Your task to perform on an android device: Open the calendar app, open the side menu, and click the "Day" option Image 0: 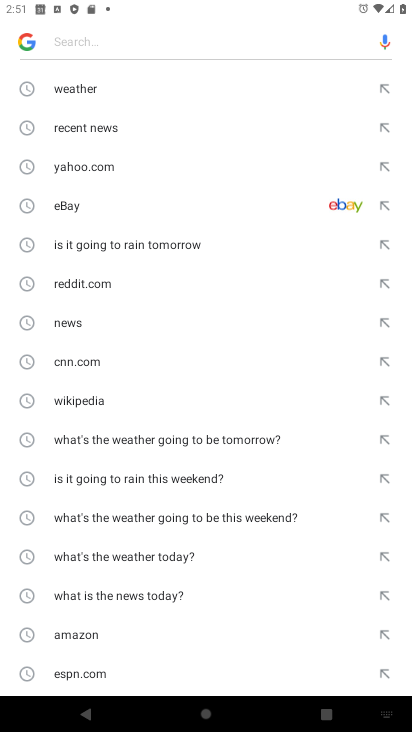
Step 0: press back button
Your task to perform on an android device: Open the calendar app, open the side menu, and click the "Day" option Image 1: 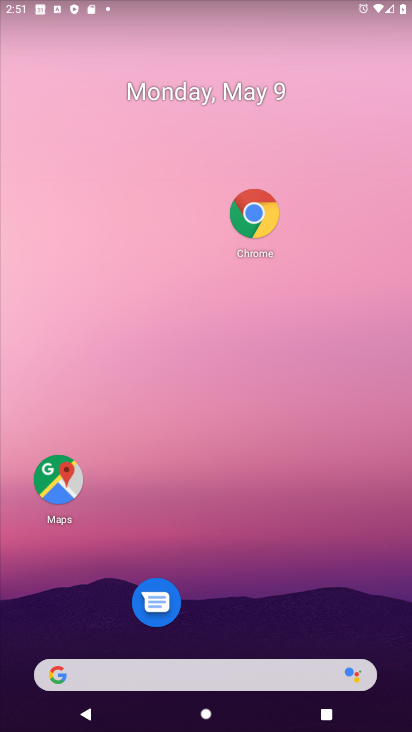
Step 1: drag from (324, 543) to (324, 221)
Your task to perform on an android device: Open the calendar app, open the side menu, and click the "Day" option Image 2: 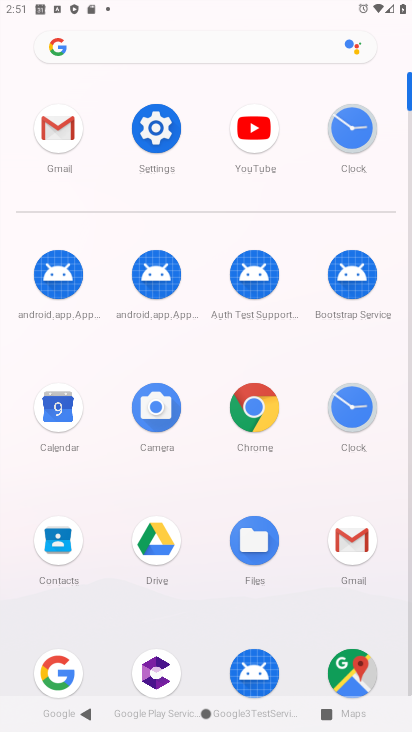
Step 2: click (52, 401)
Your task to perform on an android device: Open the calendar app, open the side menu, and click the "Day" option Image 3: 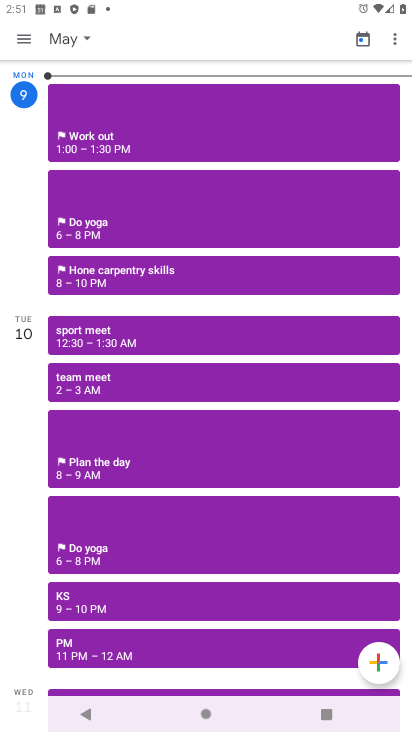
Step 3: click (8, 49)
Your task to perform on an android device: Open the calendar app, open the side menu, and click the "Day" option Image 4: 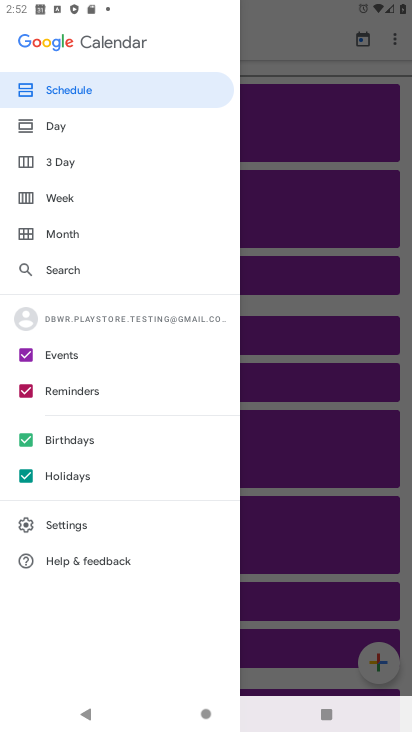
Step 4: click (103, 129)
Your task to perform on an android device: Open the calendar app, open the side menu, and click the "Day" option Image 5: 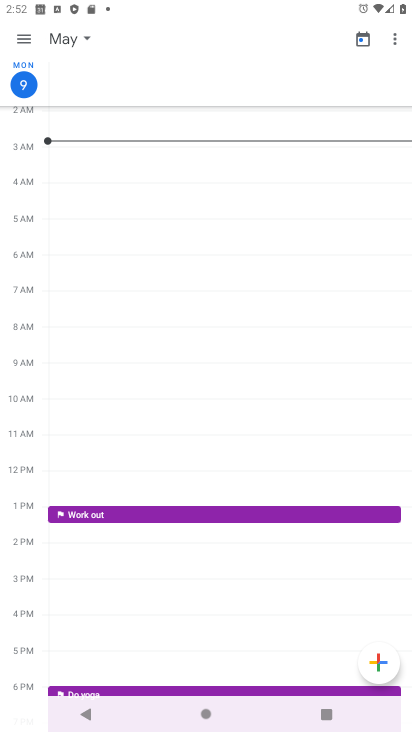
Step 5: task complete